Your task to perform on an android device: turn off picture-in-picture Image 0: 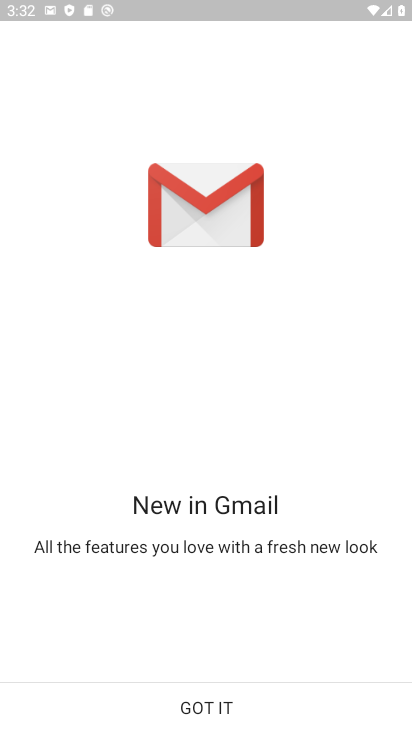
Step 0: press back button
Your task to perform on an android device: turn off picture-in-picture Image 1: 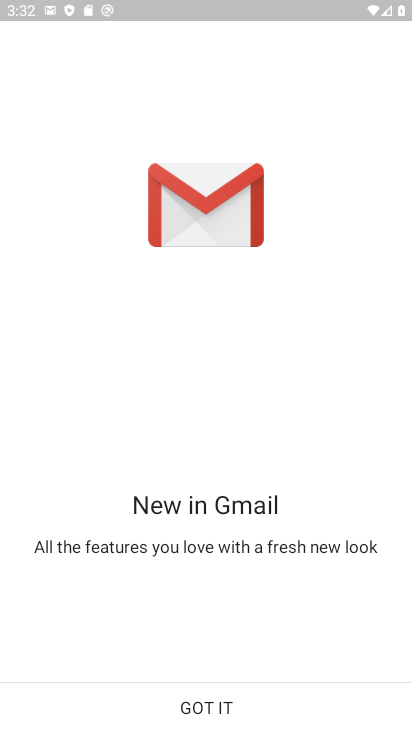
Step 1: press back button
Your task to perform on an android device: turn off picture-in-picture Image 2: 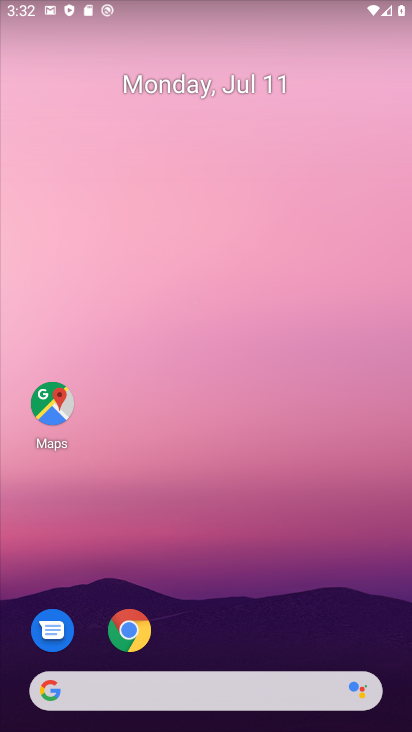
Step 2: press home button
Your task to perform on an android device: turn off picture-in-picture Image 3: 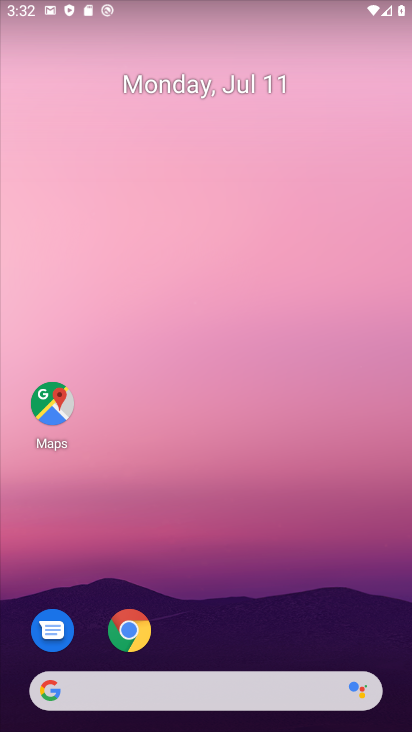
Step 3: press back button
Your task to perform on an android device: turn off picture-in-picture Image 4: 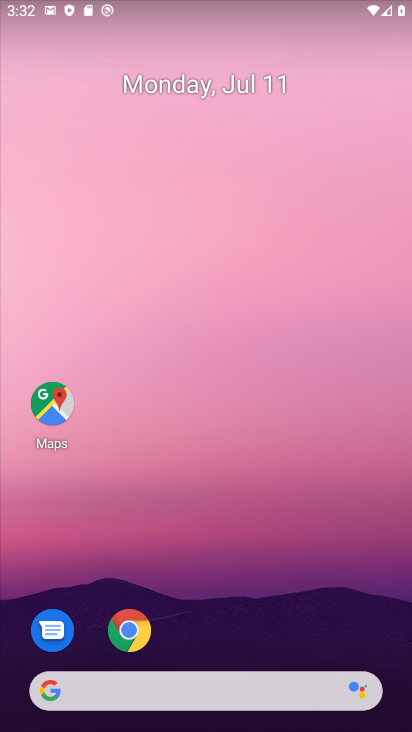
Step 4: drag from (270, 688) to (181, 154)
Your task to perform on an android device: turn off picture-in-picture Image 5: 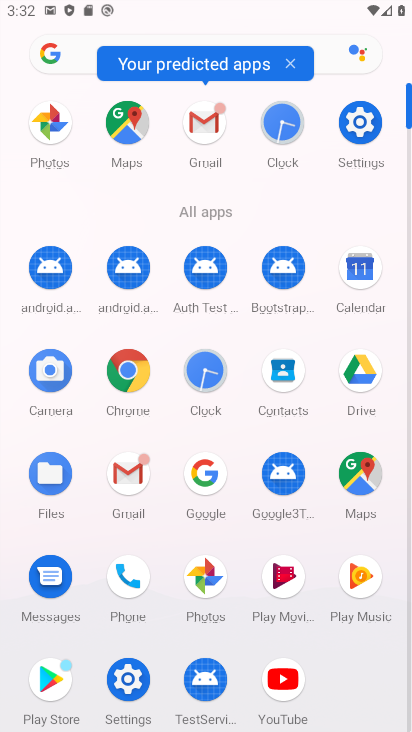
Step 5: press back button
Your task to perform on an android device: turn off picture-in-picture Image 6: 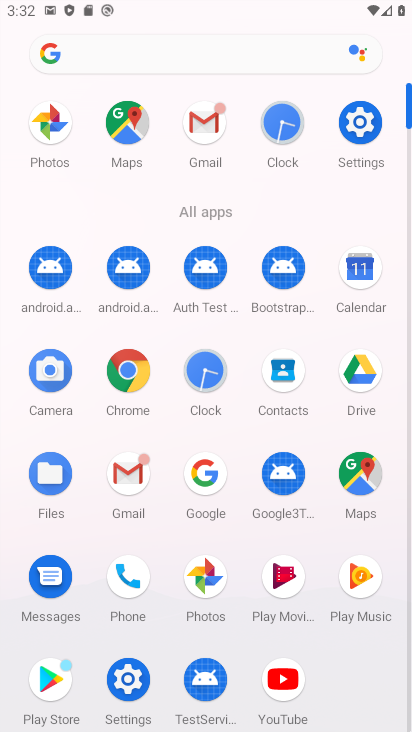
Step 6: click (125, 358)
Your task to perform on an android device: turn off picture-in-picture Image 7: 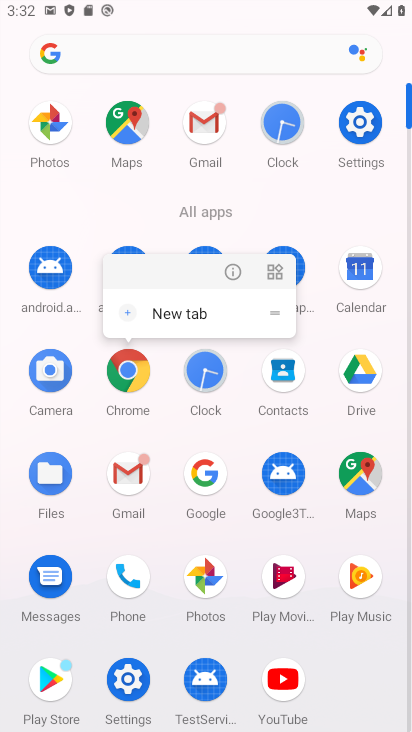
Step 7: click (228, 272)
Your task to perform on an android device: turn off picture-in-picture Image 8: 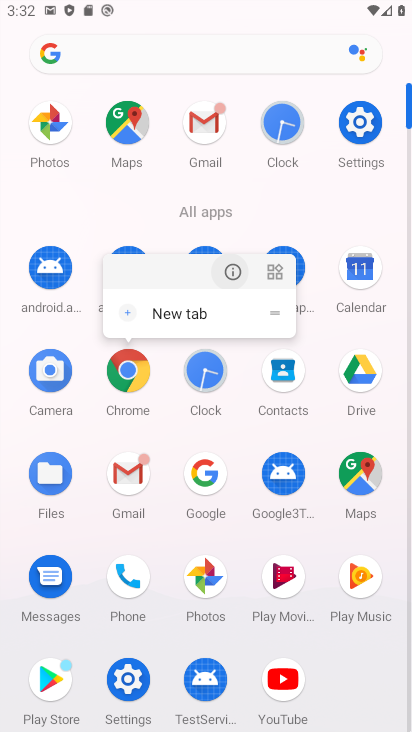
Step 8: click (228, 272)
Your task to perform on an android device: turn off picture-in-picture Image 9: 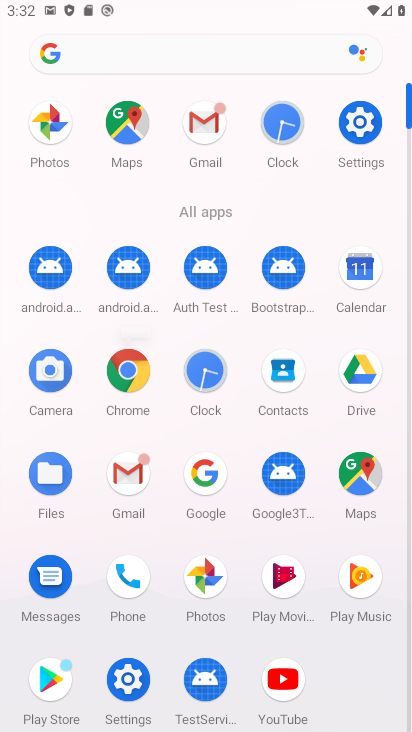
Step 9: click (228, 272)
Your task to perform on an android device: turn off picture-in-picture Image 10: 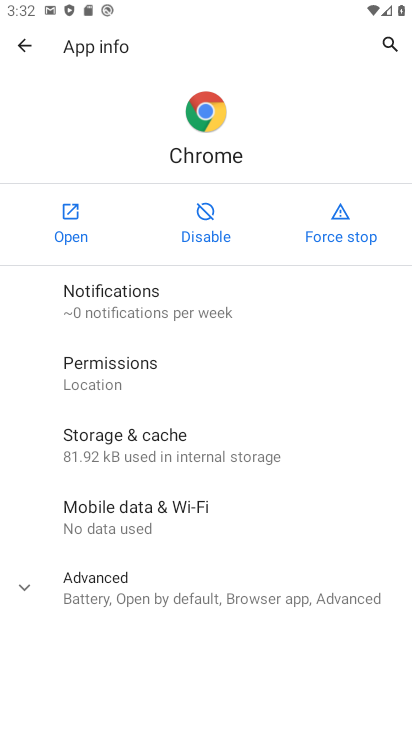
Step 10: drag from (181, 533) to (95, 131)
Your task to perform on an android device: turn off picture-in-picture Image 11: 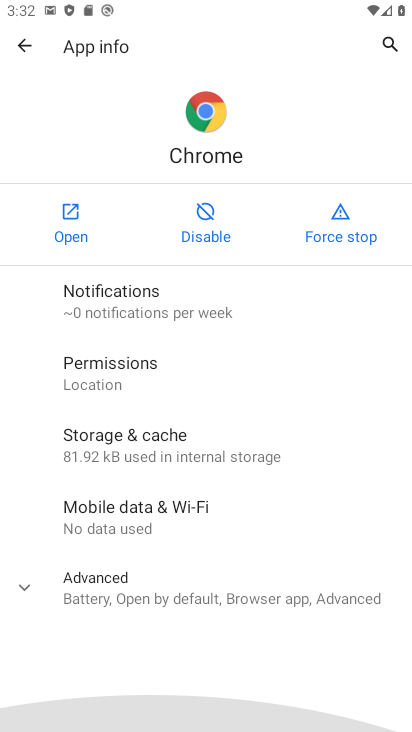
Step 11: drag from (205, 537) to (102, 169)
Your task to perform on an android device: turn off picture-in-picture Image 12: 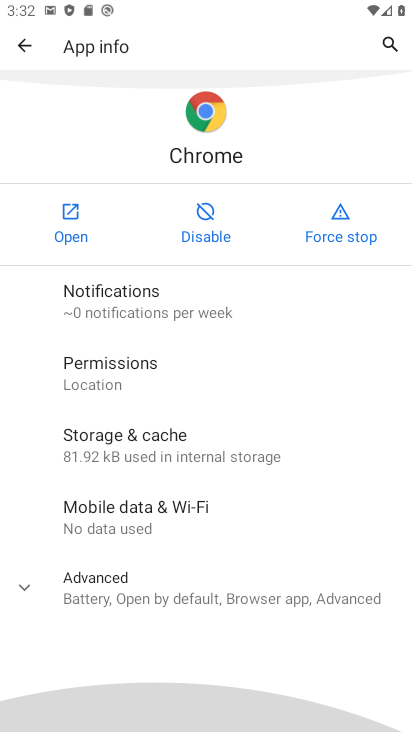
Step 12: drag from (144, 616) to (130, 186)
Your task to perform on an android device: turn off picture-in-picture Image 13: 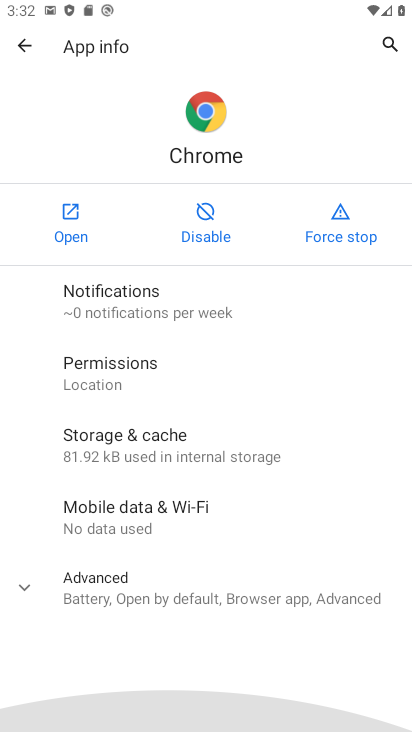
Step 13: drag from (168, 463) to (160, 249)
Your task to perform on an android device: turn off picture-in-picture Image 14: 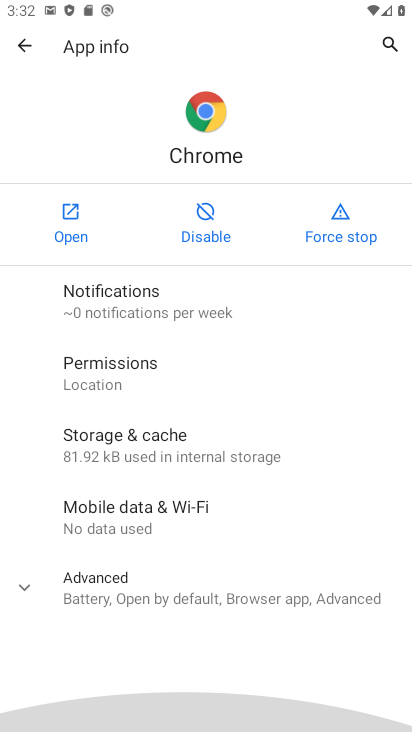
Step 14: drag from (178, 607) to (145, 181)
Your task to perform on an android device: turn off picture-in-picture Image 15: 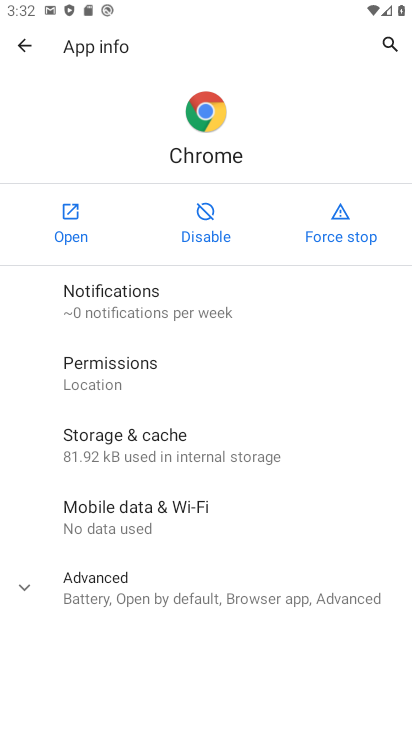
Step 15: click (91, 594)
Your task to perform on an android device: turn off picture-in-picture Image 16: 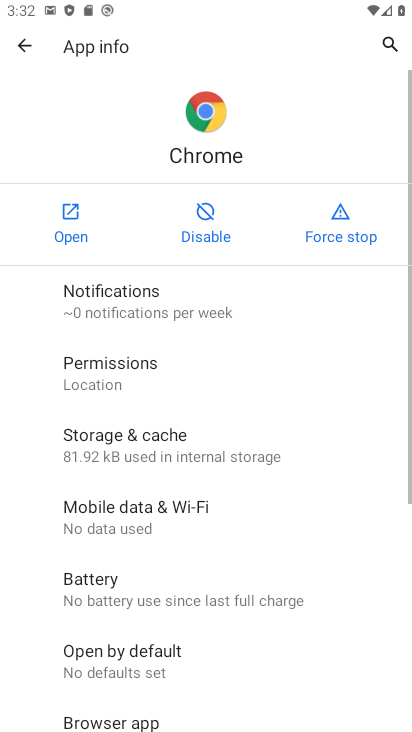
Step 16: click (91, 594)
Your task to perform on an android device: turn off picture-in-picture Image 17: 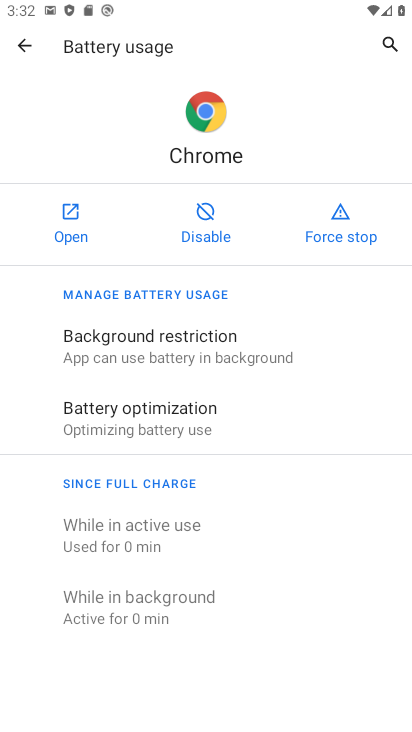
Step 17: click (123, 271)
Your task to perform on an android device: turn off picture-in-picture Image 18: 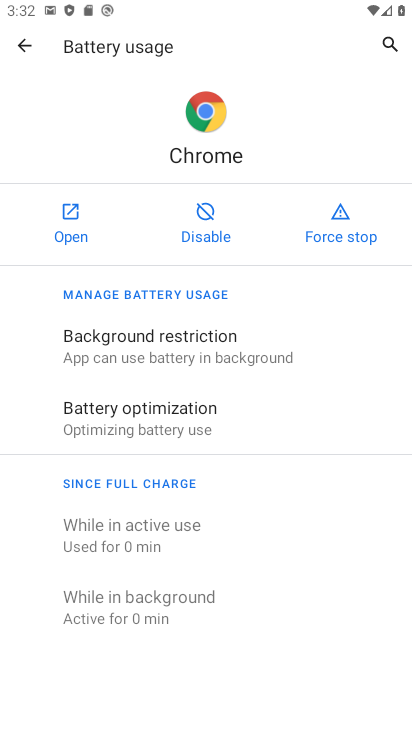
Step 18: click (152, 308)
Your task to perform on an android device: turn off picture-in-picture Image 19: 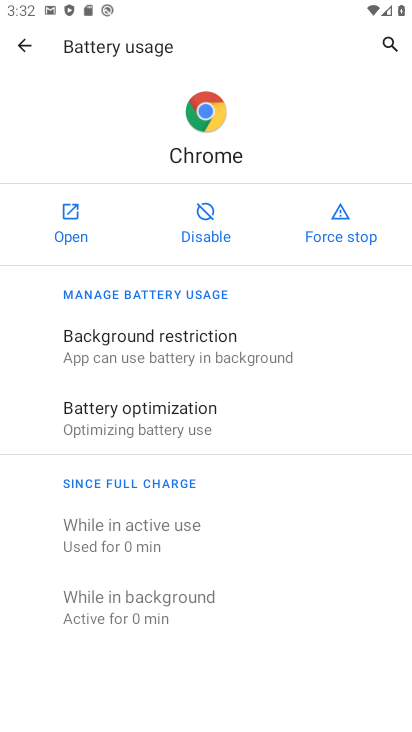
Step 19: drag from (188, 643) to (142, 395)
Your task to perform on an android device: turn off picture-in-picture Image 20: 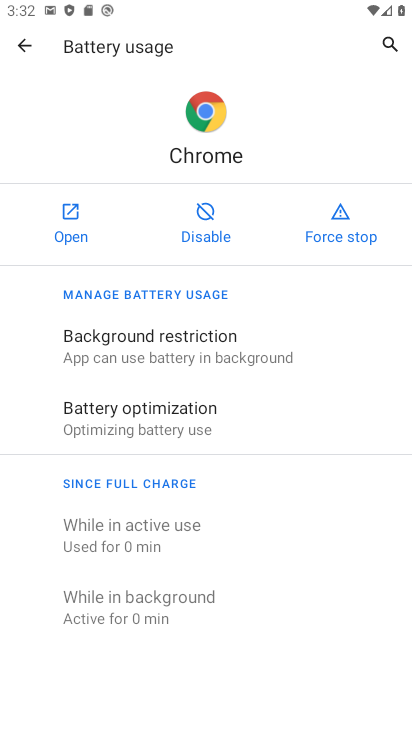
Step 20: click (22, 41)
Your task to perform on an android device: turn off picture-in-picture Image 21: 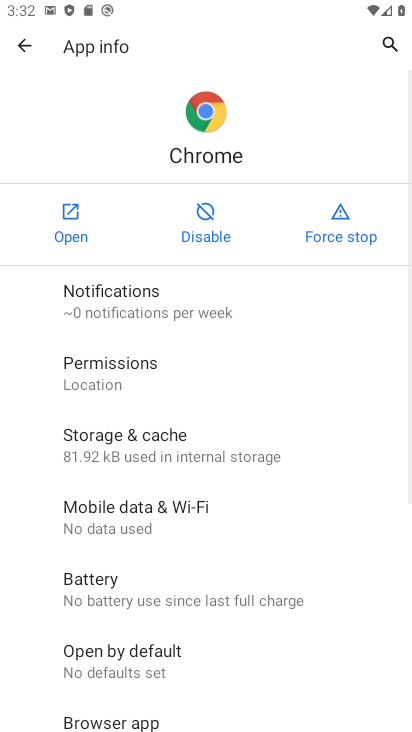
Step 21: drag from (134, 573) to (131, 286)
Your task to perform on an android device: turn off picture-in-picture Image 22: 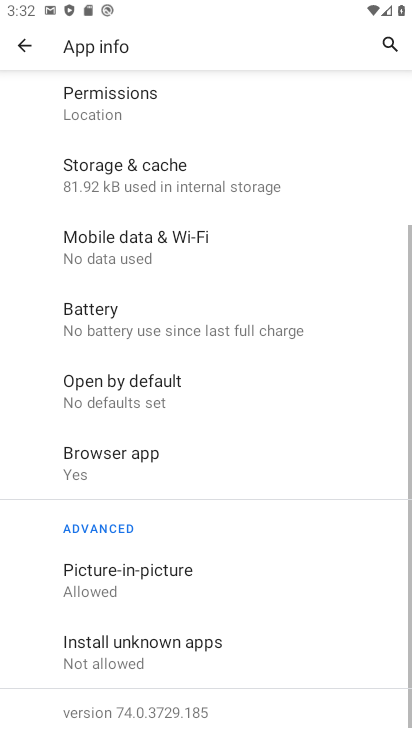
Step 22: drag from (163, 622) to (114, 252)
Your task to perform on an android device: turn off picture-in-picture Image 23: 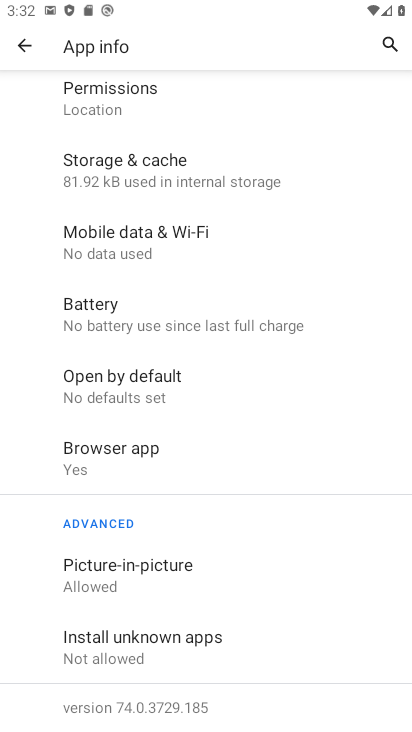
Step 23: click (109, 578)
Your task to perform on an android device: turn off picture-in-picture Image 24: 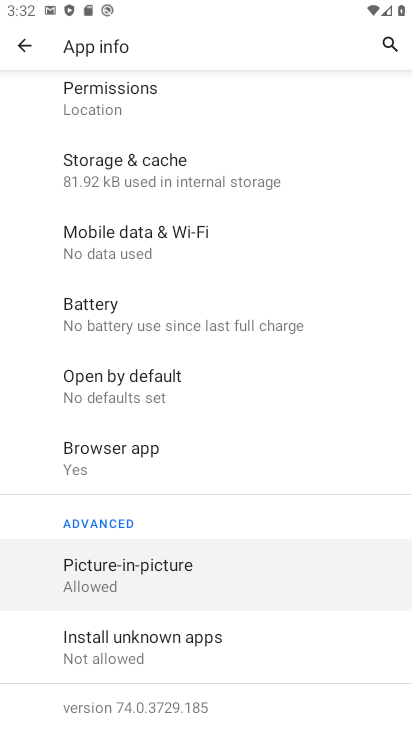
Step 24: click (109, 578)
Your task to perform on an android device: turn off picture-in-picture Image 25: 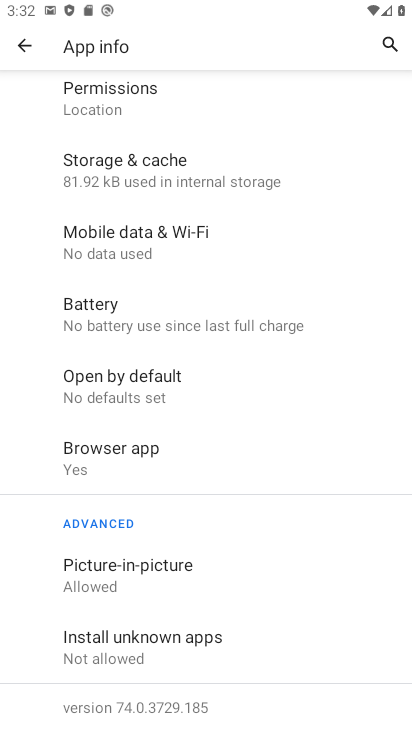
Step 25: click (109, 578)
Your task to perform on an android device: turn off picture-in-picture Image 26: 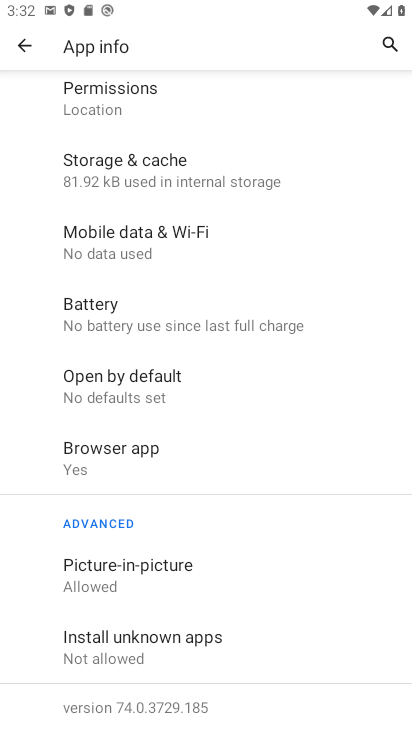
Step 26: click (109, 578)
Your task to perform on an android device: turn off picture-in-picture Image 27: 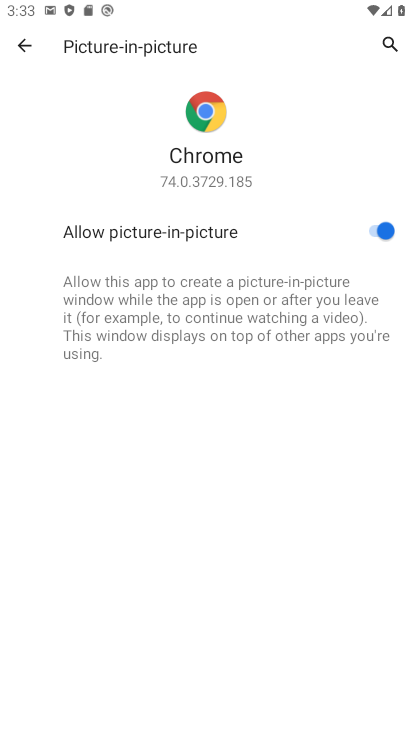
Step 27: click (383, 230)
Your task to perform on an android device: turn off picture-in-picture Image 28: 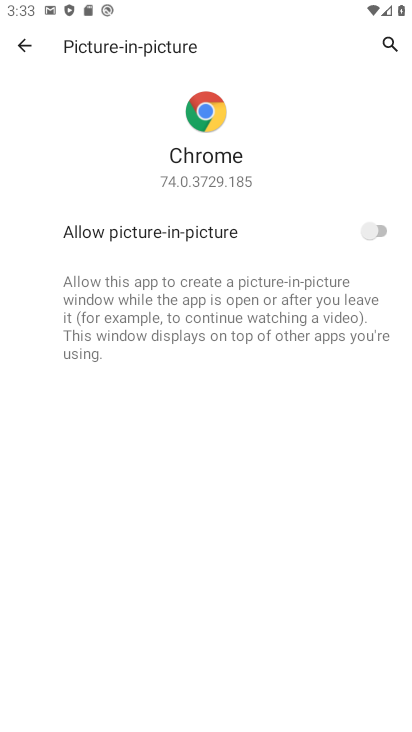
Step 28: task complete